Your task to perform on an android device: turn on translation in the chrome app Image 0: 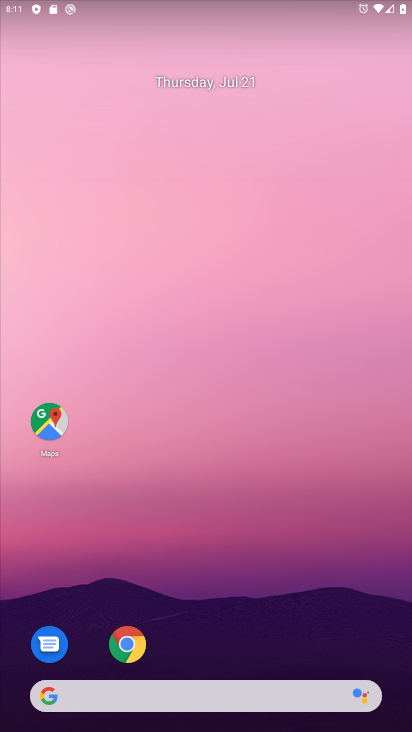
Step 0: drag from (352, 633) to (371, 68)
Your task to perform on an android device: turn on translation in the chrome app Image 1: 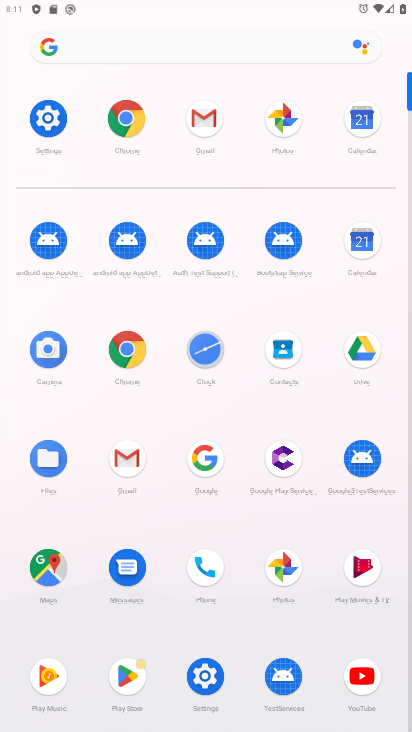
Step 1: click (136, 353)
Your task to perform on an android device: turn on translation in the chrome app Image 2: 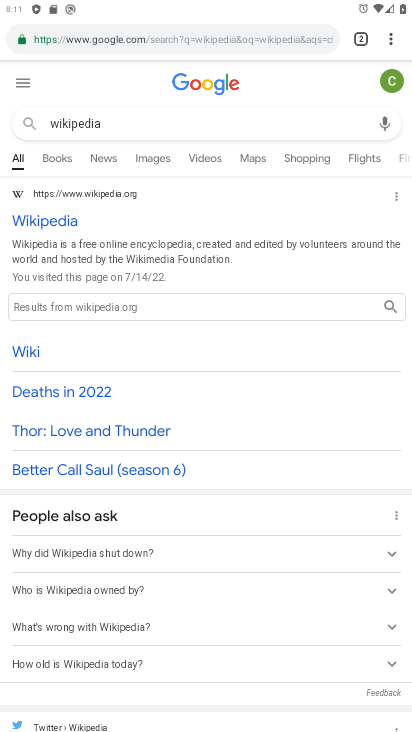
Step 2: click (388, 42)
Your task to perform on an android device: turn on translation in the chrome app Image 3: 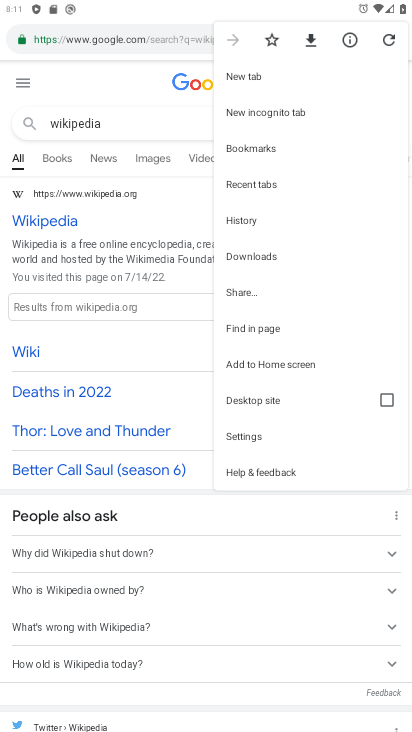
Step 3: click (252, 437)
Your task to perform on an android device: turn on translation in the chrome app Image 4: 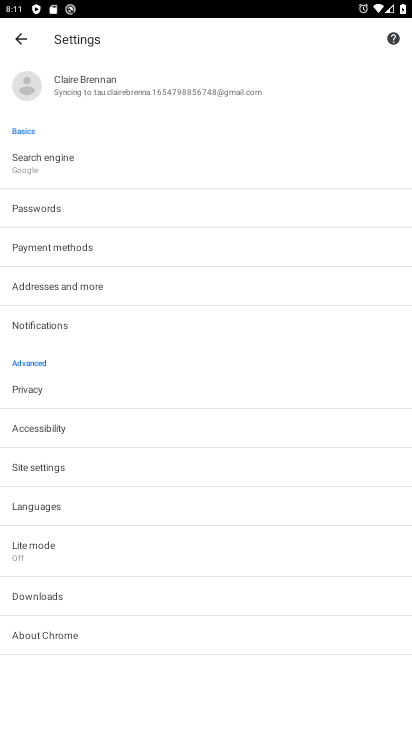
Step 4: click (182, 503)
Your task to perform on an android device: turn on translation in the chrome app Image 5: 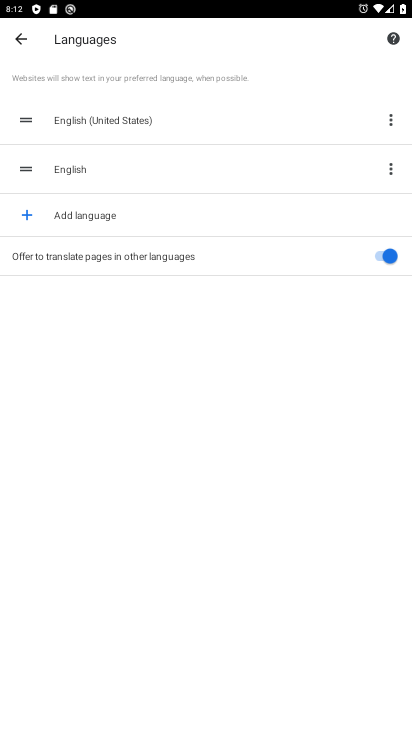
Step 5: task complete